Your task to perform on an android device: What's on my calendar today? Image 0: 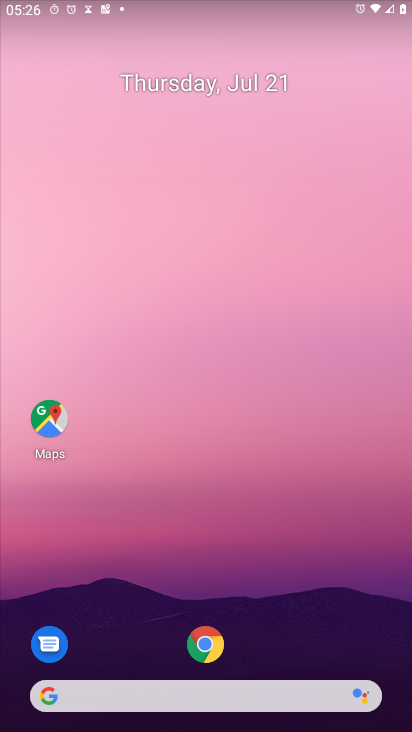
Step 0: press home button
Your task to perform on an android device: What's on my calendar today? Image 1: 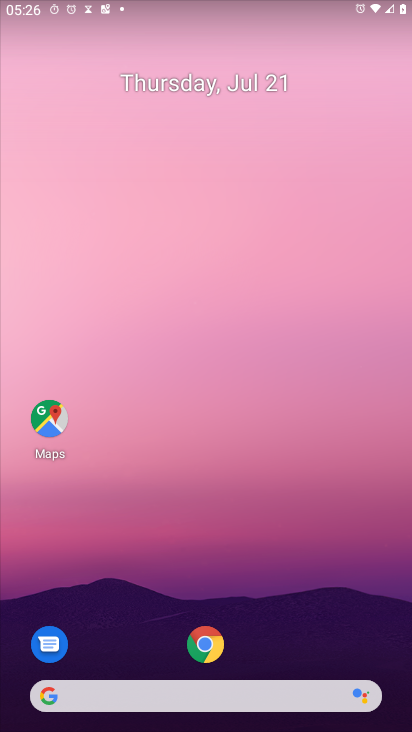
Step 1: drag from (283, 627) to (253, 6)
Your task to perform on an android device: What's on my calendar today? Image 2: 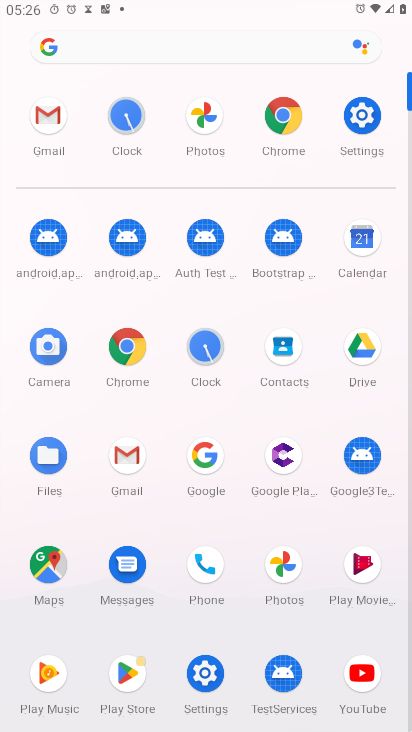
Step 2: click (359, 241)
Your task to perform on an android device: What's on my calendar today? Image 3: 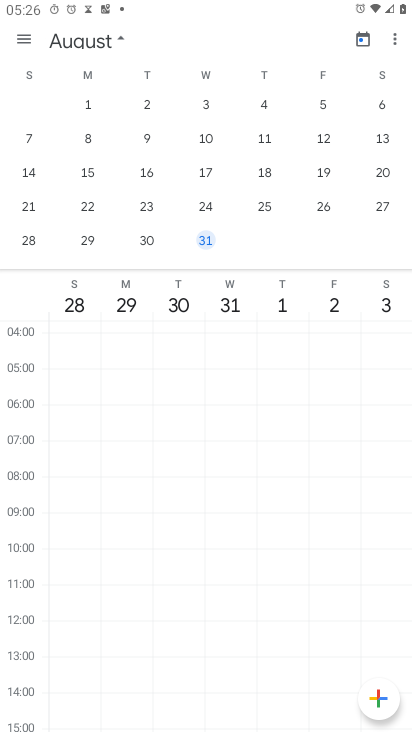
Step 3: drag from (63, 136) to (399, 168)
Your task to perform on an android device: What's on my calendar today? Image 4: 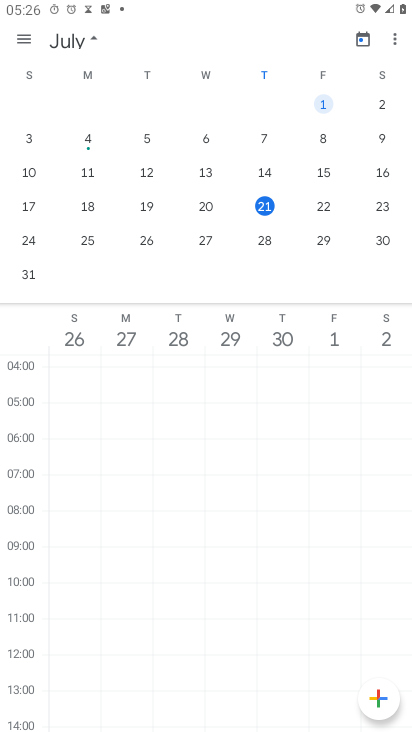
Step 4: click (261, 203)
Your task to perform on an android device: What's on my calendar today? Image 5: 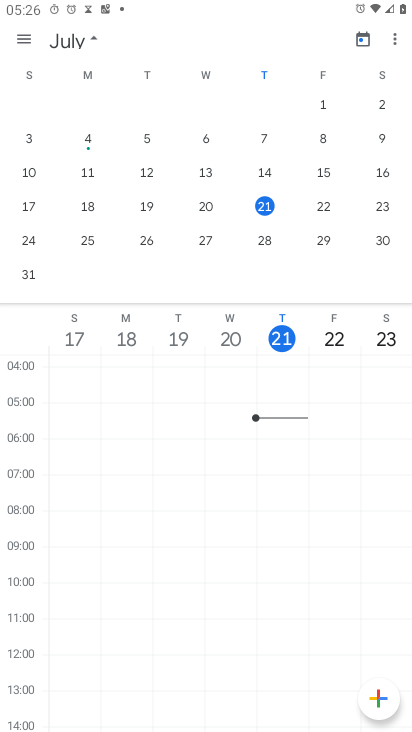
Step 5: click (256, 208)
Your task to perform on an android device: What's on my calendar today? Image 6: 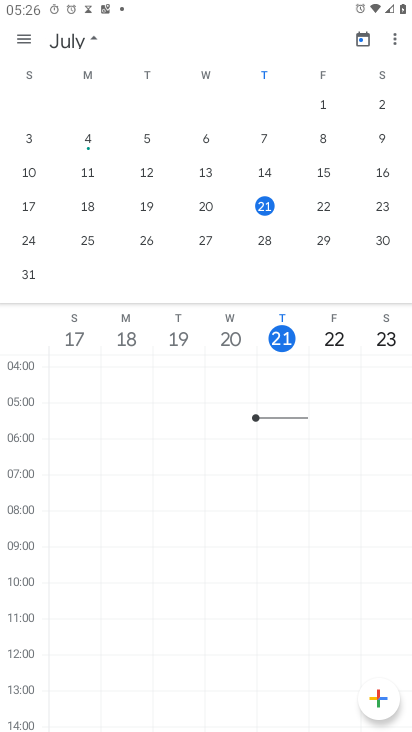
Step 6: click (265, 204)
Your task to perform on an android device: What's on my calendar today? Image 7: 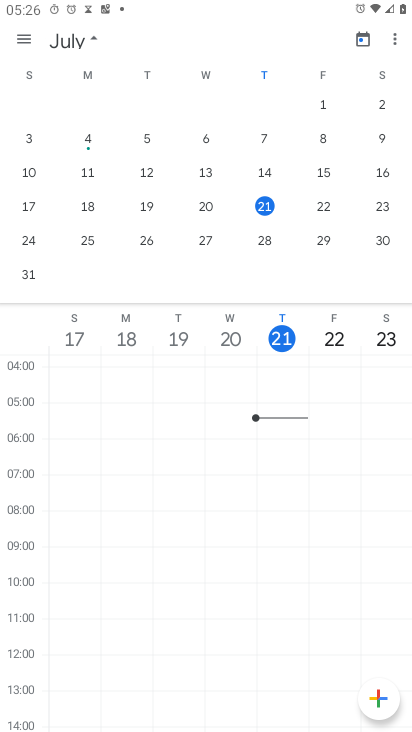
Step 7: click (260, 203)
Your task to perform on an android device: What's on my calendar today? Image 8: 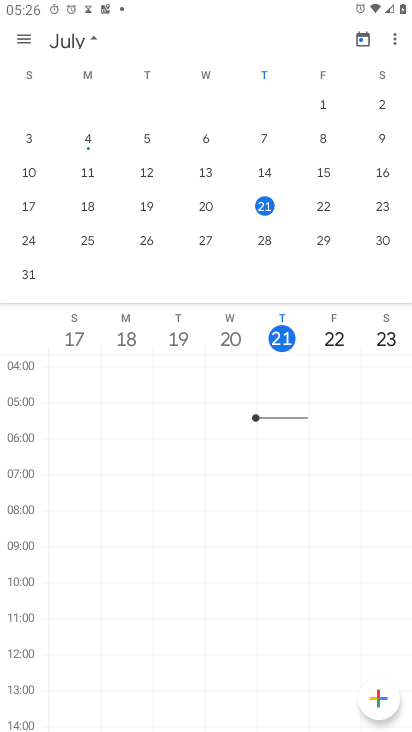
Step 8: click (260, 203)
Your task to perform on an android device: What's on my calendar today? Image 9: 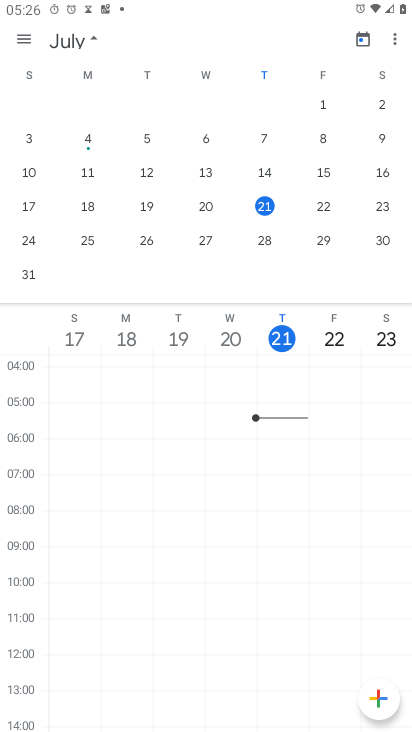
Step 9: click (260, 203)
Your task to perform on an android device: What's on my calendar today? Image 10: 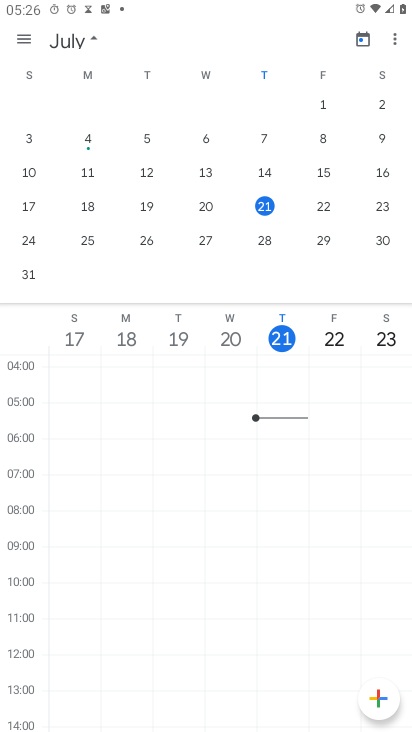
Step 10: click (260, 203)
Your task to perform on an android device: What's on my calendar today? Image 11: 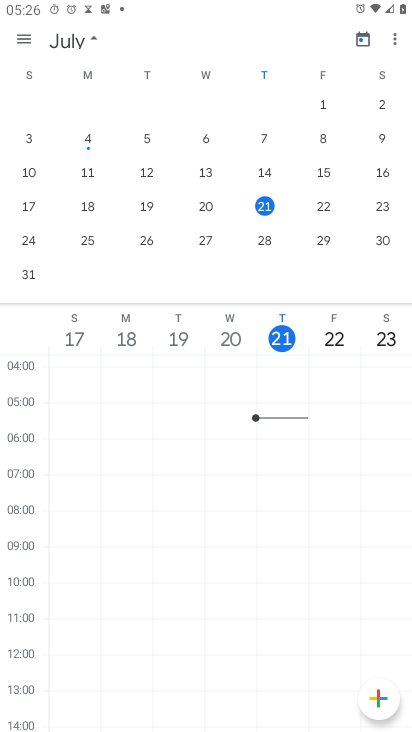
Step 11: task complete